Your task to perform on an android device: Is it going to rain tomorrow? Image 0: 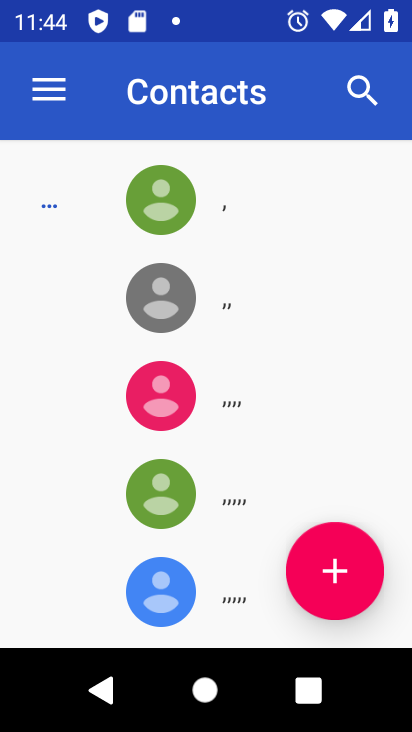
Step 0: press home button
Your task to perform on an android device: Is it going to rain tomorrow? Image 1: 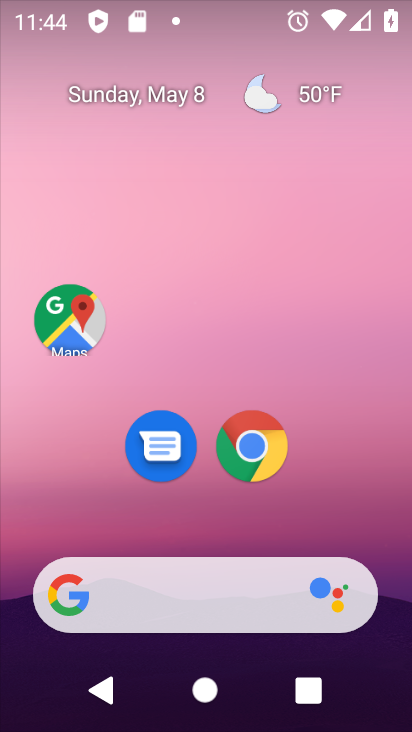
Step 1: drag from (336, 533) to (309, 27)
Your task to perform on an android device: Is it going to rain tomorrow? Image 2: 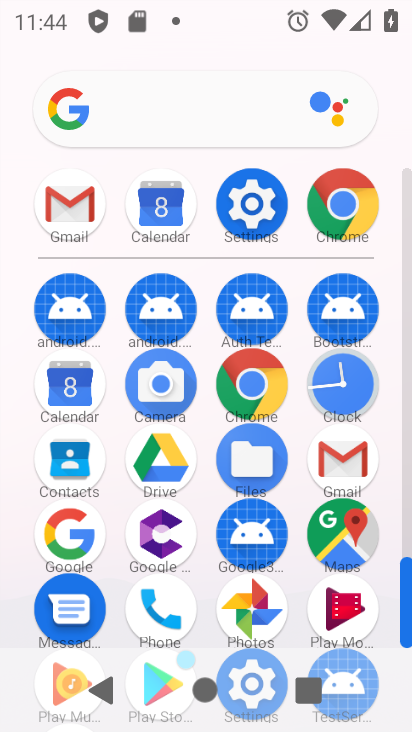
Step 2: click (154, 123)
Your task to perform on an android device: Is it going to rain tomorrow? Image 3: 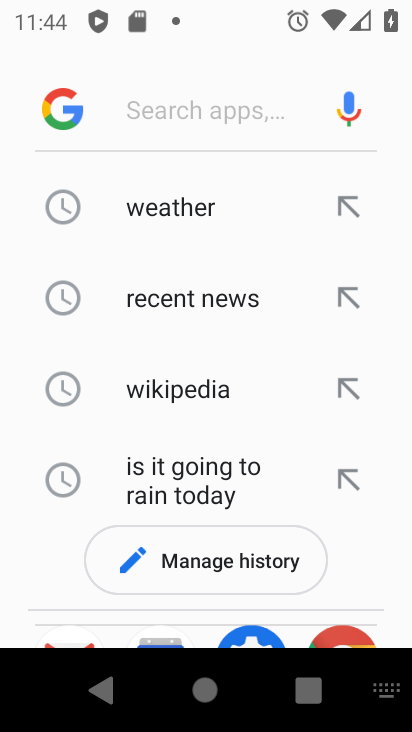
Step 3: type "is it going to rain tomorrow"
Your task to perform on an android device: Is it going to rain tomorrow? Image 4: 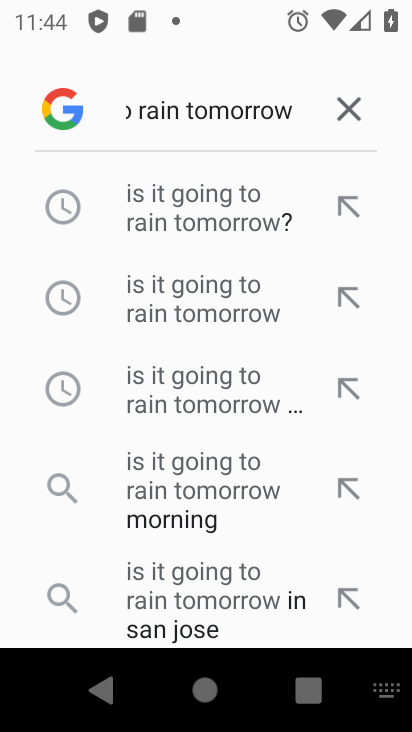
Step 4: click (216, 204)
Your task to perform on an android device: Is it going to rain tomorrow? Image 5: 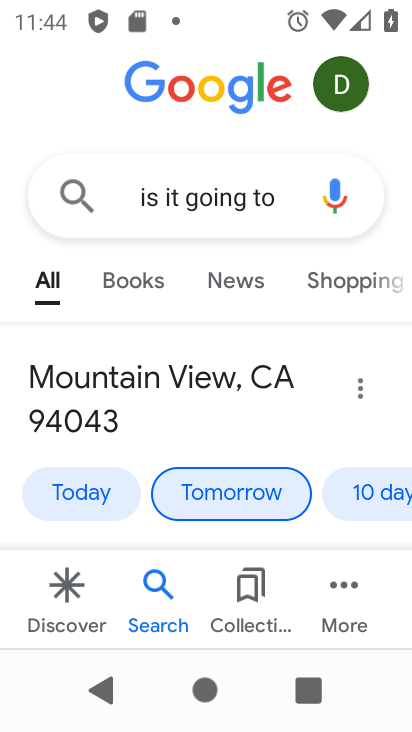
Step 5: task complete